Your task to perform on an android device: open a new tab in the chrome app Image 0: 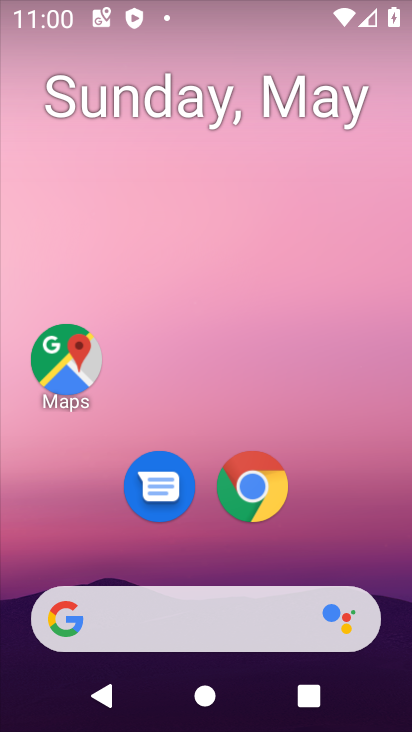
Step 0: click (260, 480)
Your task to perform on an android device: open a new tab in the chrome app Image 1: 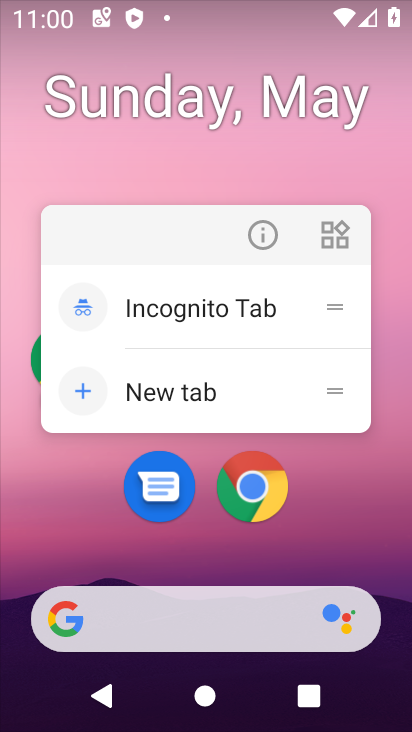
Step 1: click (248, 491)
Your task to perform on an android device: open a new tab in the chrome app Image 2: 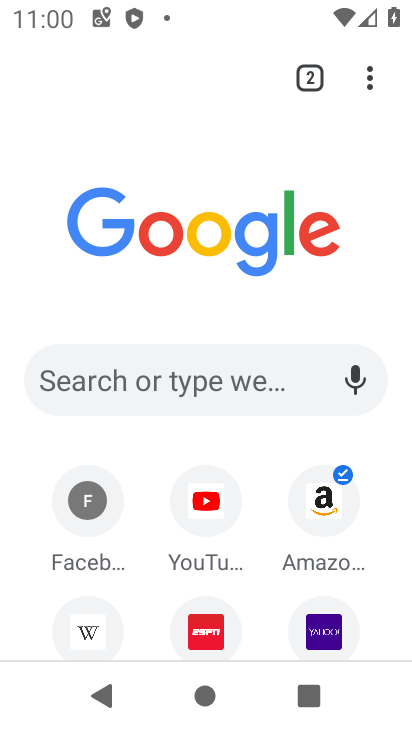
Step 2: click (302, 84)
Your task to perform on an android device: open a new tab in the chrome app Image 3: 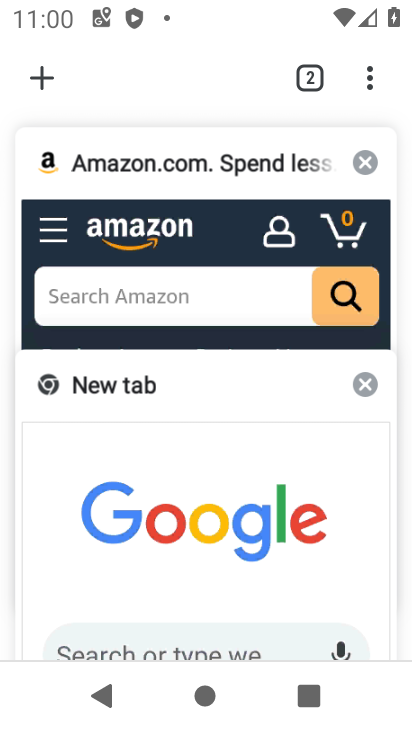
Step 3: click (39, 86)
Your task to perform on an android device: open a new tab in the chrome app Image 4: 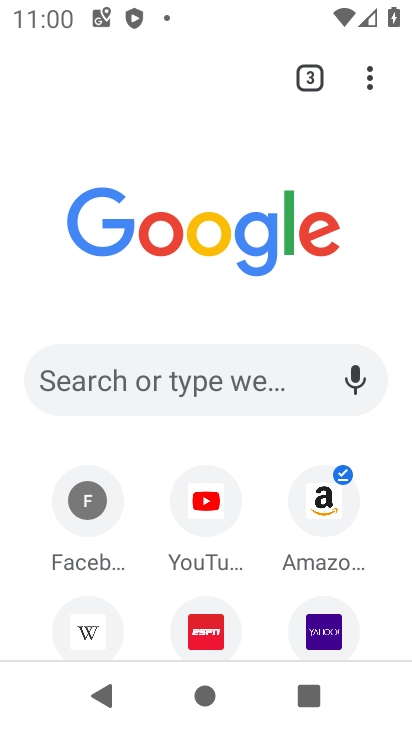
Step 4: task complete